Your task to perform on an android device: empty trash in the gmail app Image 0: 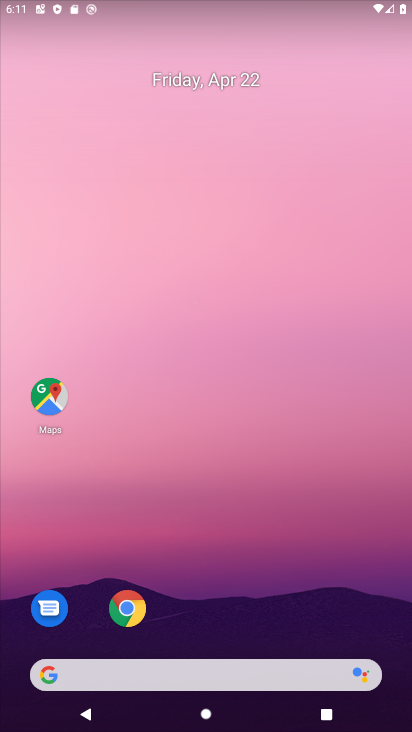
Step 0: drag from (325, 516) to (228, 105)
Your task to perform on an android device: empty trash in the gmail app Image 1: 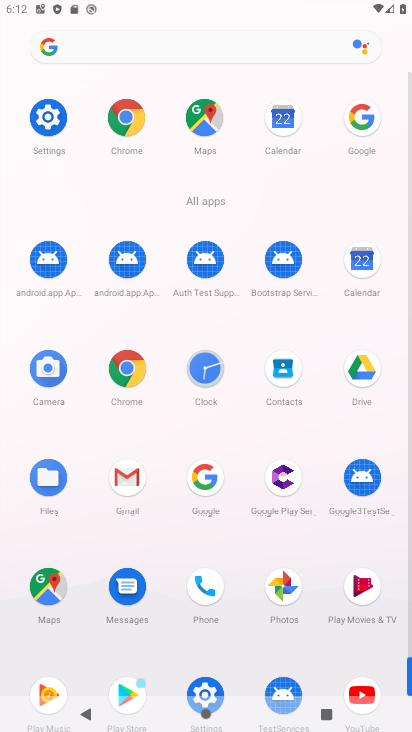
Step 1: click (130, 494)
Your task to perform on an android device: empty trash in the gmail app Image 2: 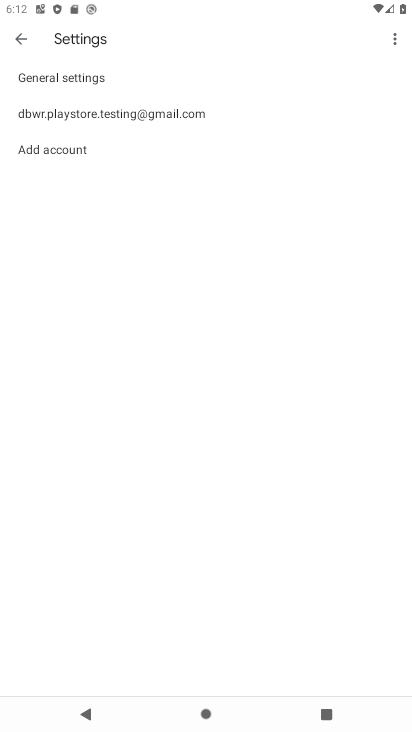
Step 2: click (134, 121)
Your task to perform on an android device: empty trash in the gmail app Image 3: 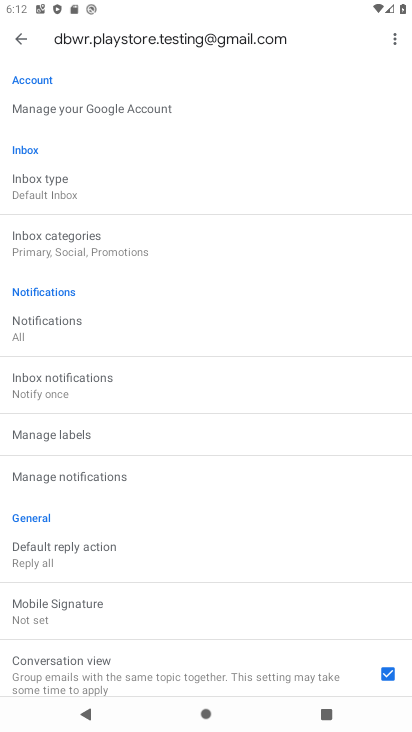
Step 3: press home button
Your task to perform on an android device: empty trash in the gmail app Image 4: 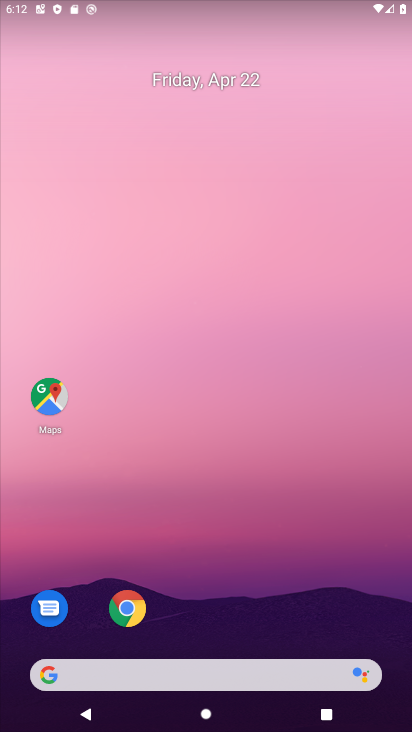
Step 4: drag from (207, 622) to (246, 142)
Your task to perform on an android device: empty trash in the gmail app Image 5: 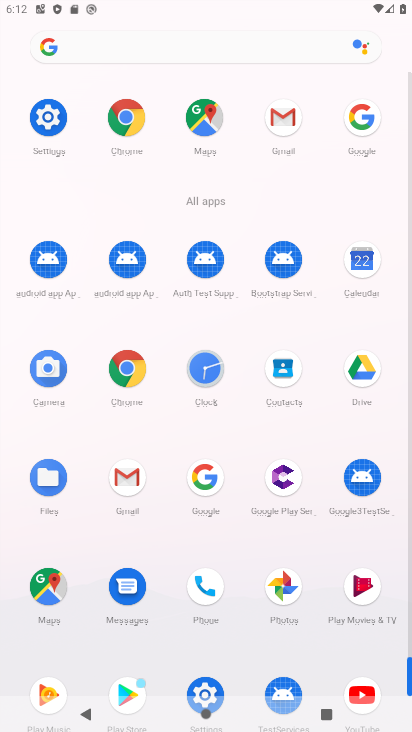
Step 5: click (276, 118)
Your task to perform on an android device: empty trash in the gmail app Image 6: 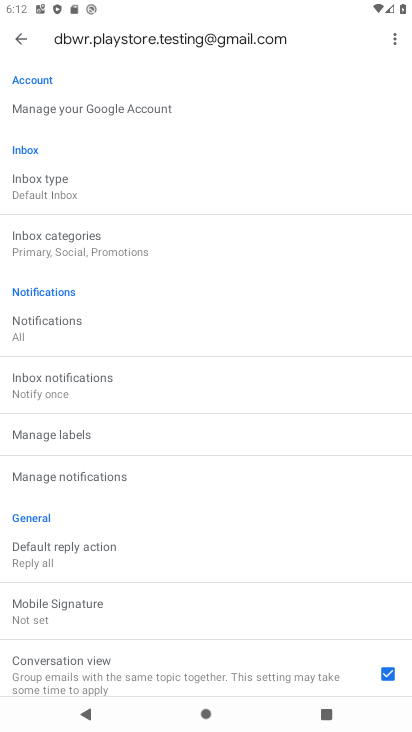
Step 6: drag from (71, 590) to (125, 285)
Your task to perform on an android device: empty trash in the gmail app Image 7: 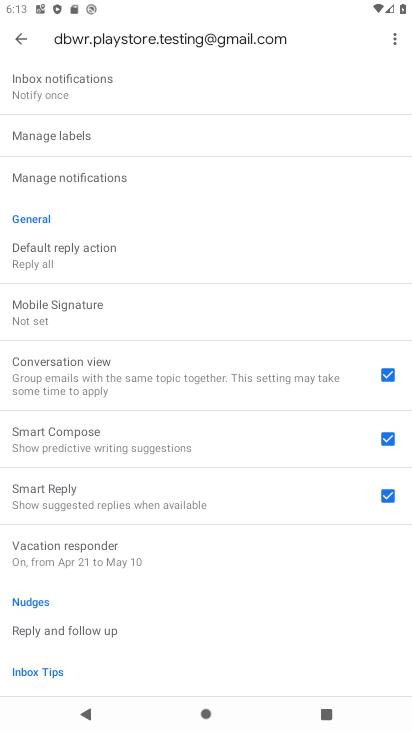
Step 7: drag from (219, 232) to (120, 700)
Your task to perform on an android device: empty trash in the gmail app Image 8: 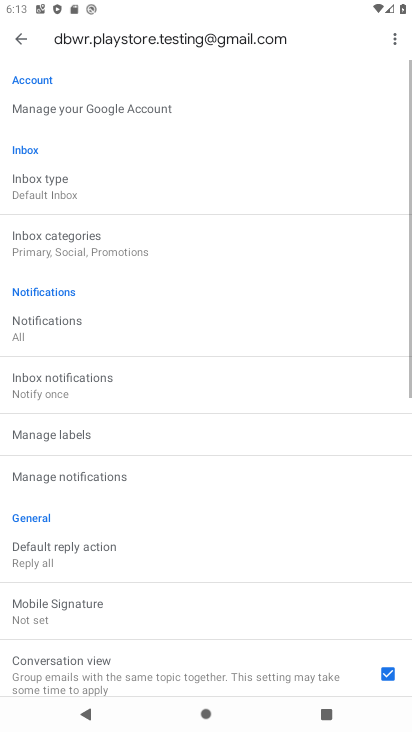
Step 8: drag from (119, 327) to (58, 685)
Your task to perform on an android device: empty trash in the gmail app Image 9: 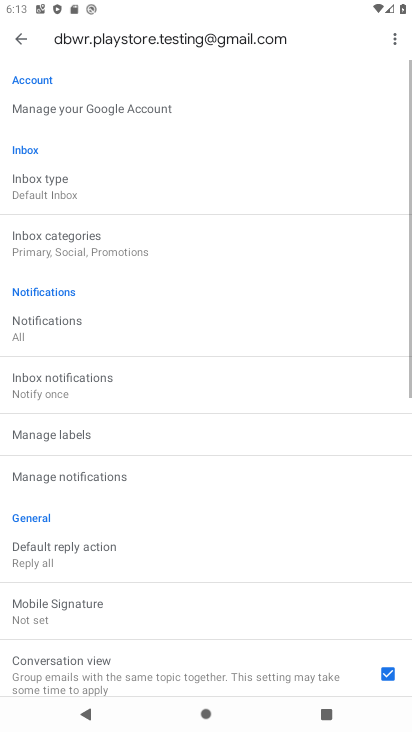
Step 9: drag from (140, 297) to (91, 731)
Your task to perform on an android device: empty trash in the gmail app Image 10: 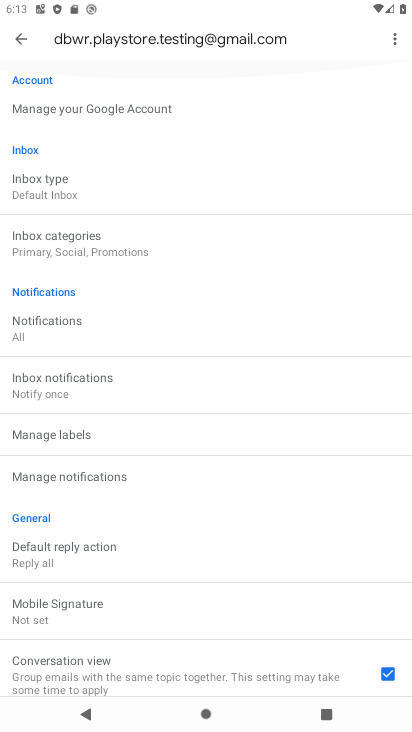
Step 10: click (88, 717)
Your task to perform on an android device: empty trash in the gmail app Image 11: 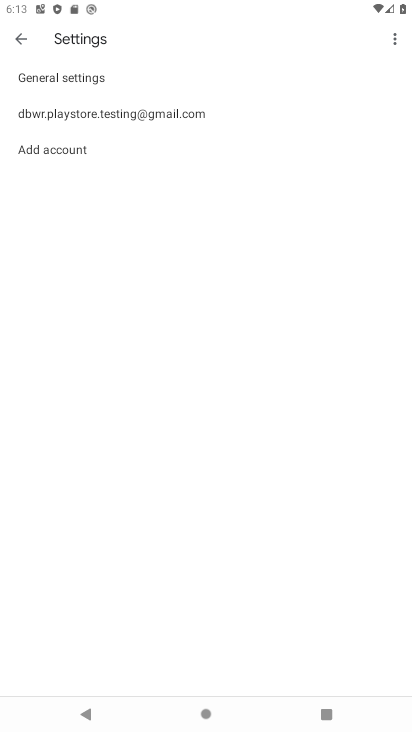
Step 11: press back button
Your task to perform on an android device: empty trash in the gmail app Image 12: 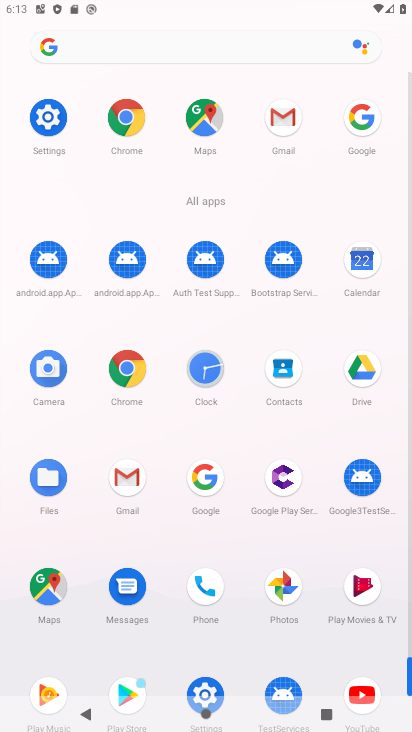
Step 12: click (286, 128)
Your task to perform on an android device: empty trash in the gmail app Image 13: 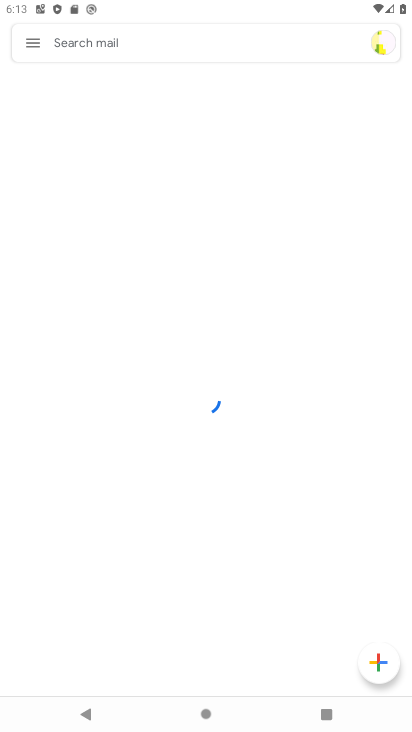
Step 13: click (33, 44)
Your task to perform on an android device: empty trash in the gmail app Image 14: 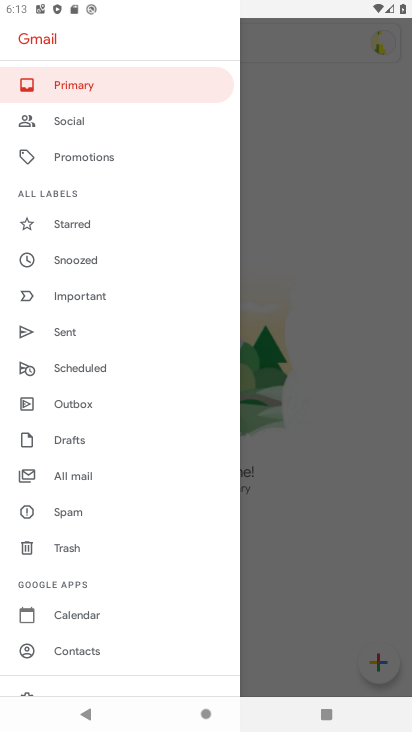
Step 14: click (74, 545)
Your task to perform on an android device: empty trash in the gmail app Image 15: 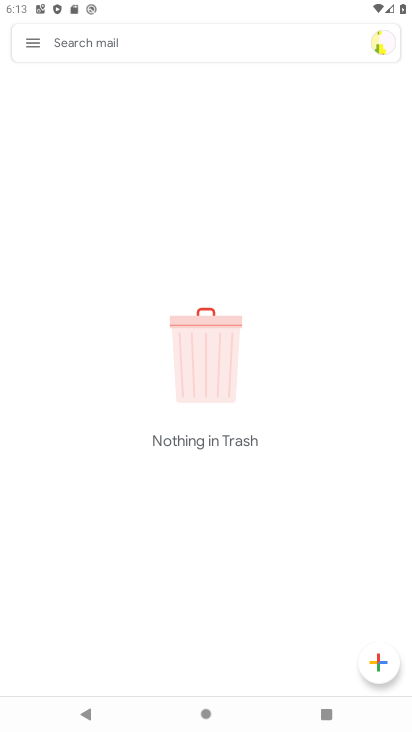
Step 15: task complete